Your task to perform on an android device: change notifications settings Image 0: 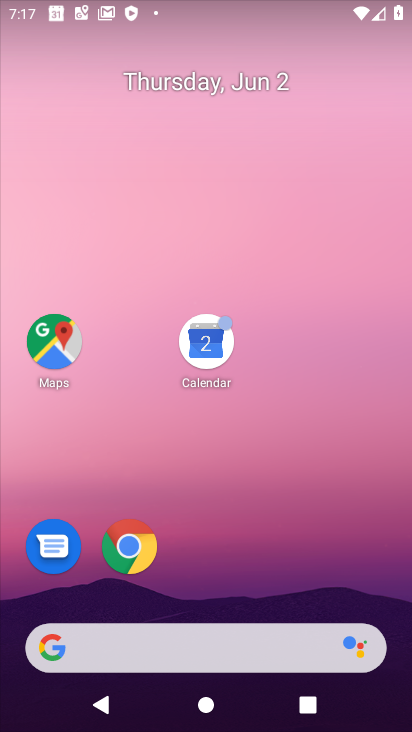
Step 0: press home button
Your task to perform on an android device: change notifications settings Image 1: 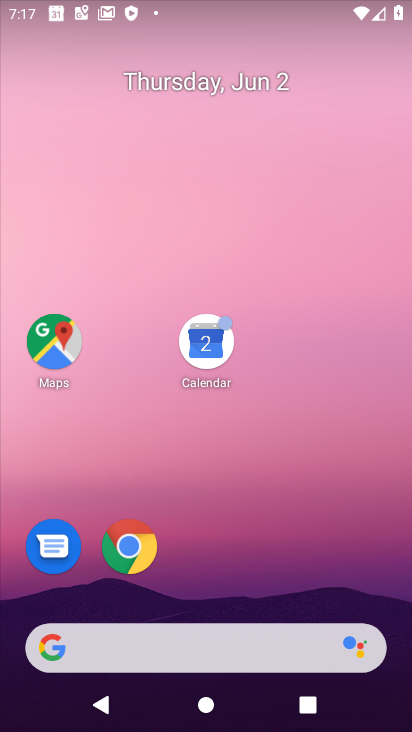
Step 1: drag from (248, 582) to (270, 222)
Your task to perform on an android device: change notifications settings Image 2: 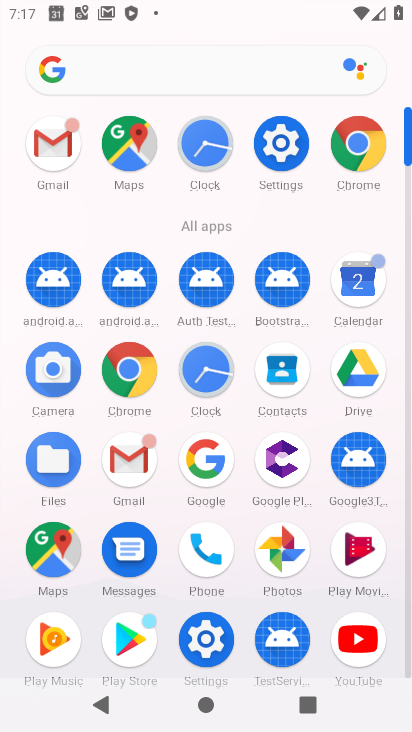
Step 2: drag from (282, 150) to (250, 533)
Your task to perform on an android device: change notifications settings Image 3: 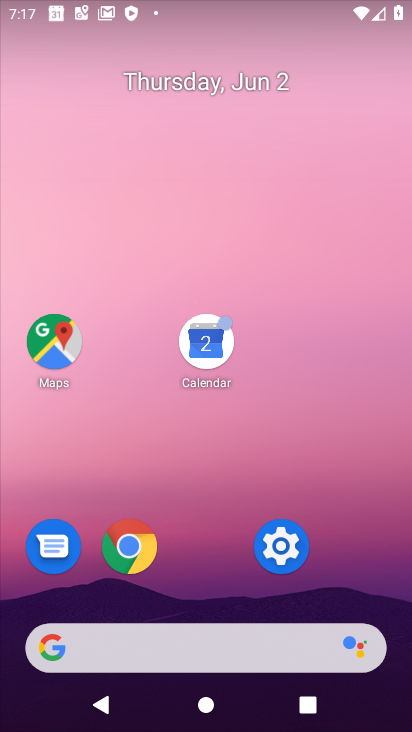
Step 3: click (278, 556)
Your task to perform on an android device: change notifications settings Image 4: 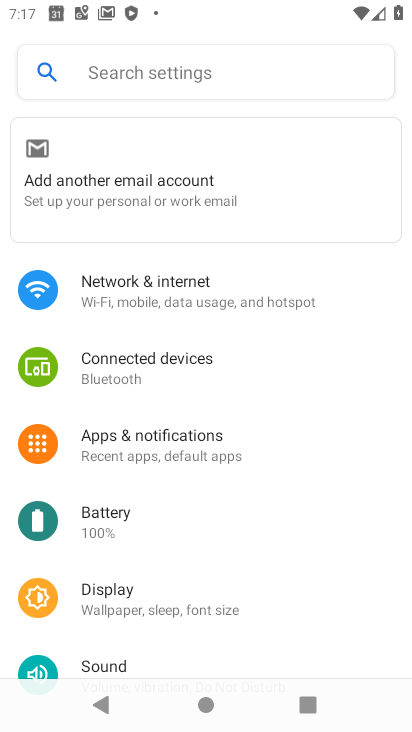
Step 4: click (175, 72)
Your task to perform on an android device: change notifications settings Image 5: 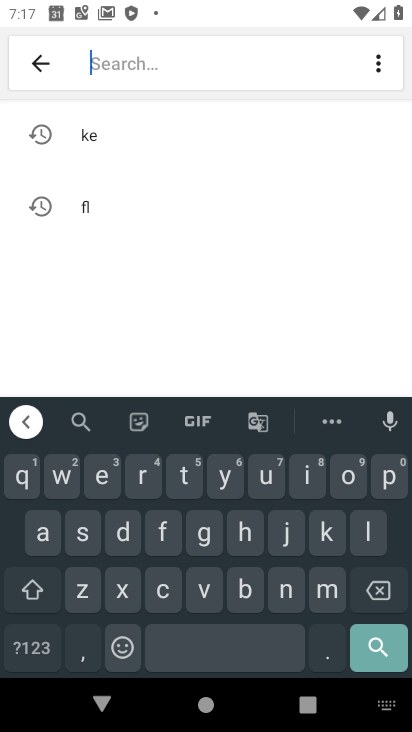
Step 5: click (292, 592)
Your task to perform on an android device: change notifications settings Image 6: 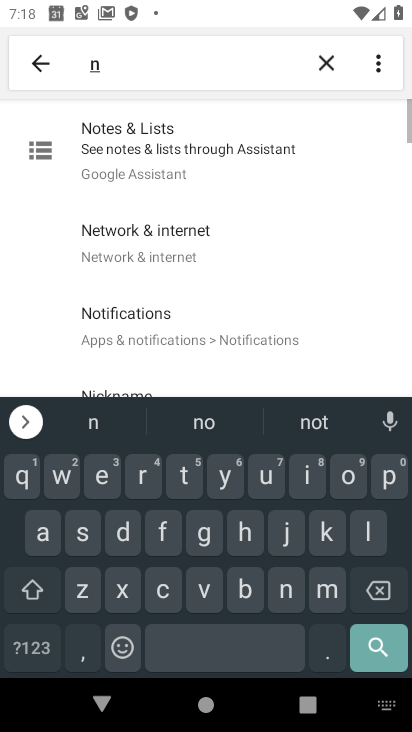
Step 6: click (349, 482)
Your task to perform on an android device: change notifications settings Image 7: 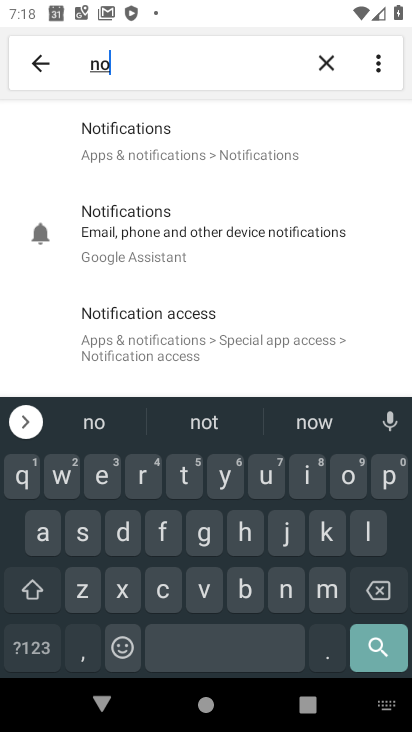
Step 7: click (149, 147)
Your task to perform on an android device: change notifications settings Image 8: 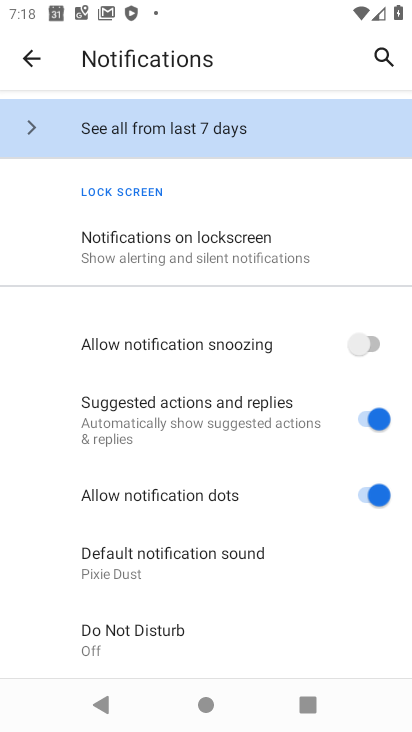
Step 8: click (143, 242)
Your task to perform on an android device: change notifications settings Image 9: 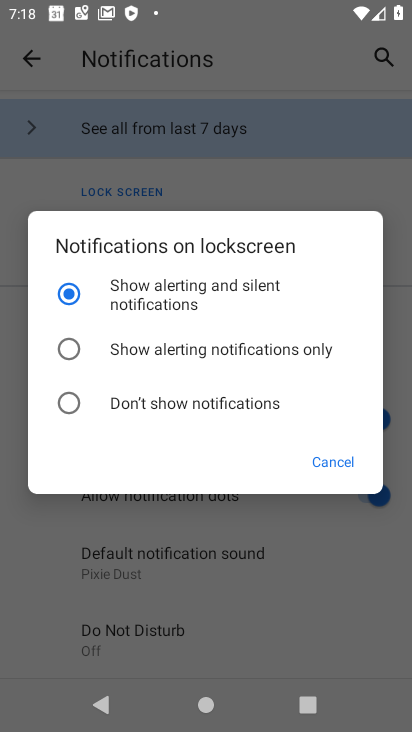
Step 9: task complete